Your task to perform on an android device: toggle translation in the chrome app Image 0: 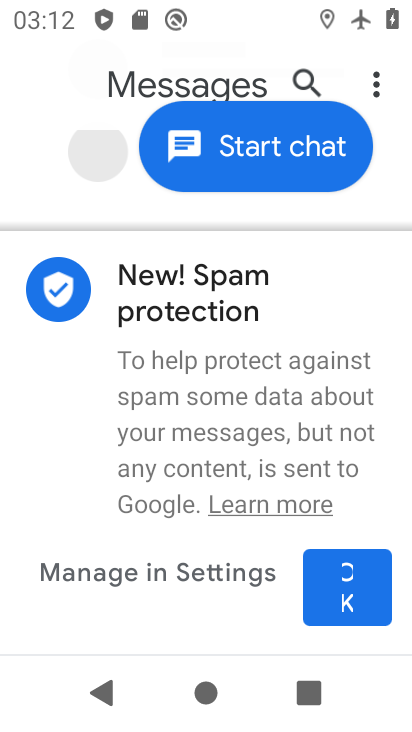
Step 0: press home button
Your task to perform on an android device: toggle translation in the chrome app Image 1: 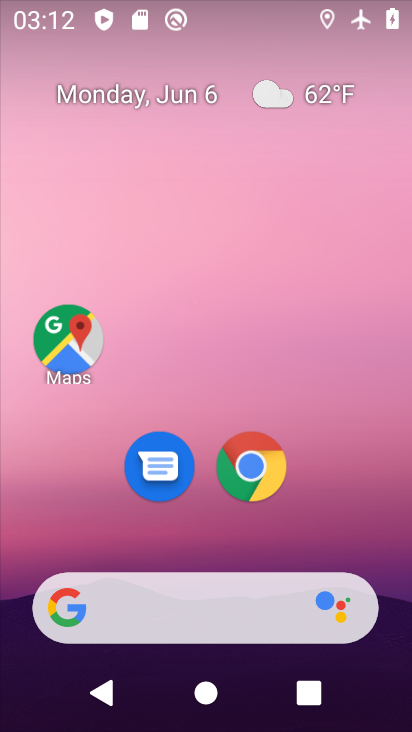
Step 1: click (250, 464)
Your task to perform on an android device: toggle translation in the chrome app Image 2: 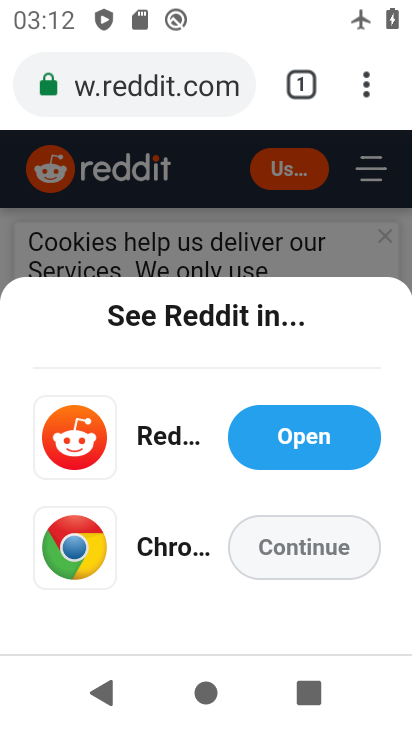
Step 2: click (182, 84)
Your task to perform on an android device: toggle translation in the chrome app Image 3: 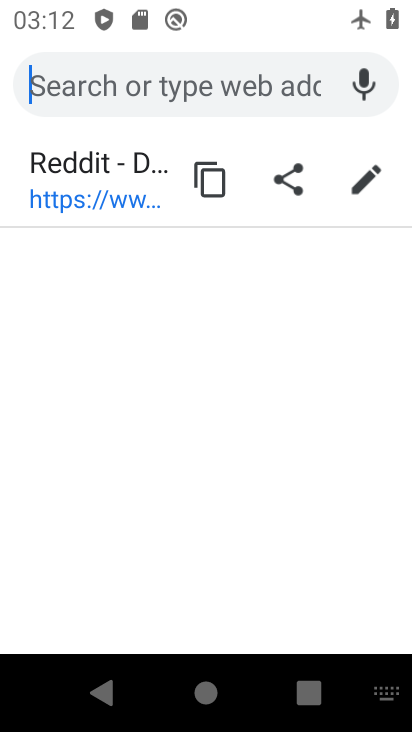
Step 3: press back button
Your task to perform on an android device: toggle translation in the chrome app Image 4: 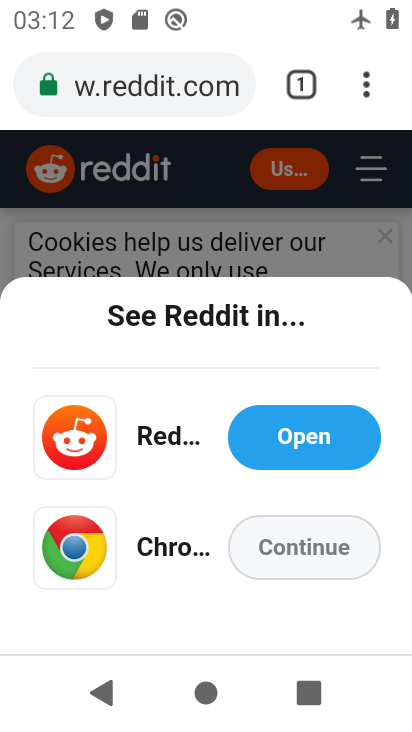
Step 4: drag from (364, 79) to (196, 507)
Your task to perform on an android device: toggle translation in the chrome app Image 5: 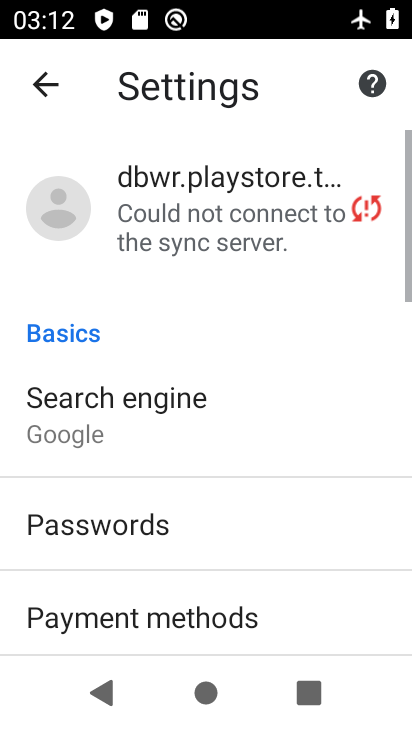
Step 5: drag from (207, 571) to (244, 29)
Your task to perform on an android device: toggle translation in the chrome app Image 6: 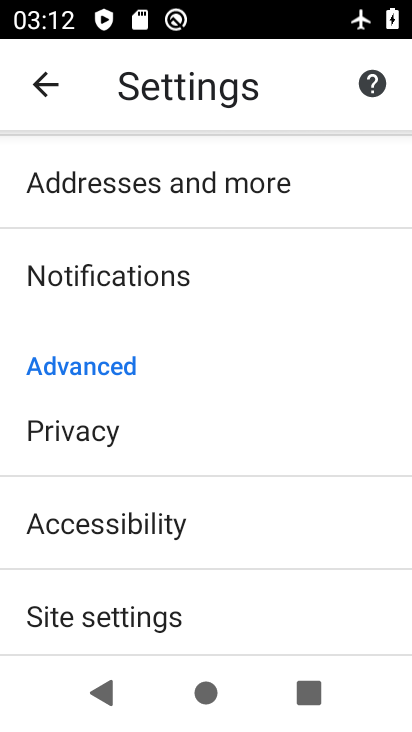
Step 6: drag from (175, 539) to (223, 173)
Your task to perform on an android device: toggle translation in the chrome app Image 7: 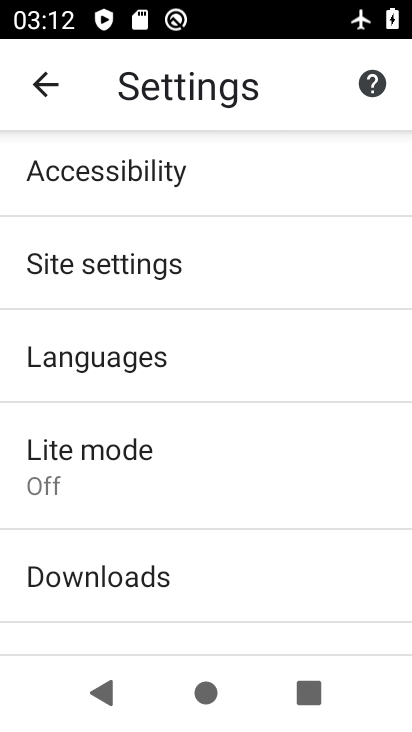
Step 7: click (125, 351)
Your task to perform on an android device: toggle translation in the chrome app Image 8: 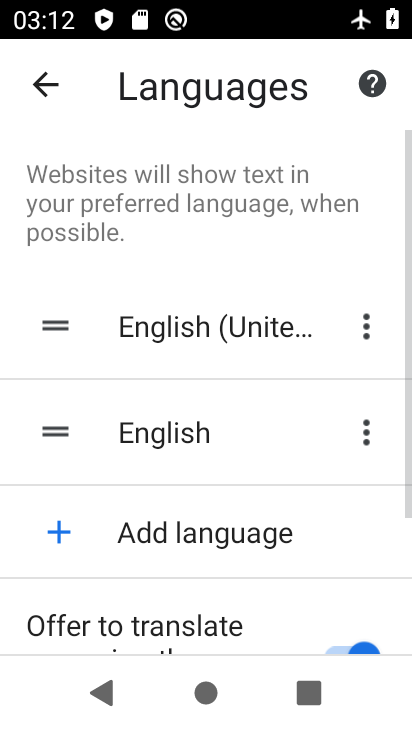
Step 8: drag from (274, 575) to (293, 267)
Your task to perform on an android device: toggle translation in the chrome app Image 9: 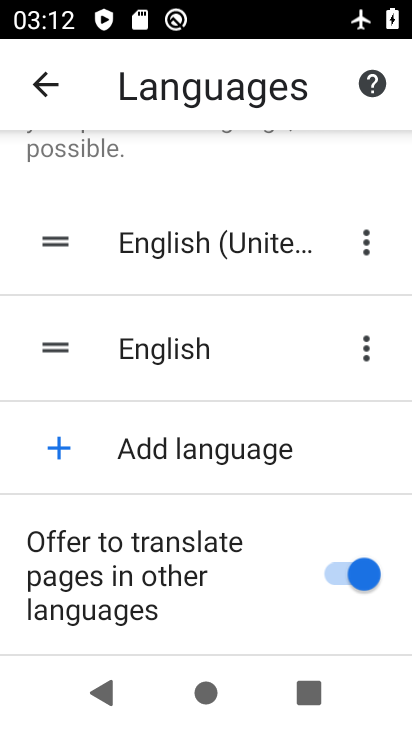
Step 9: click (351, 580)
Your task to perform on an android device: toggle translation in the chrome app Image 10: 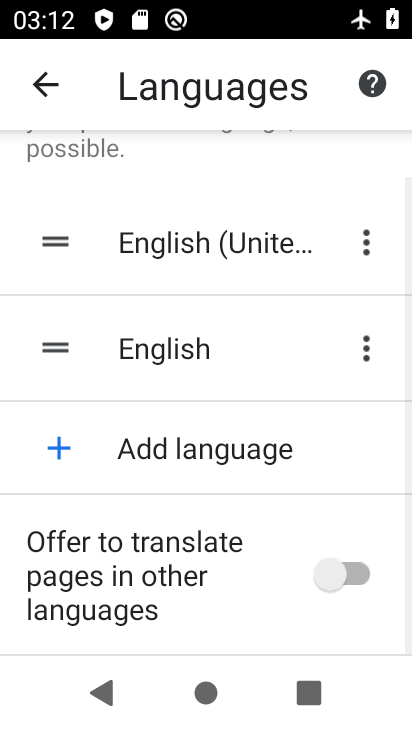
Step 10: task complete